Your task to perform on an android device: Go to Maps Image 0: 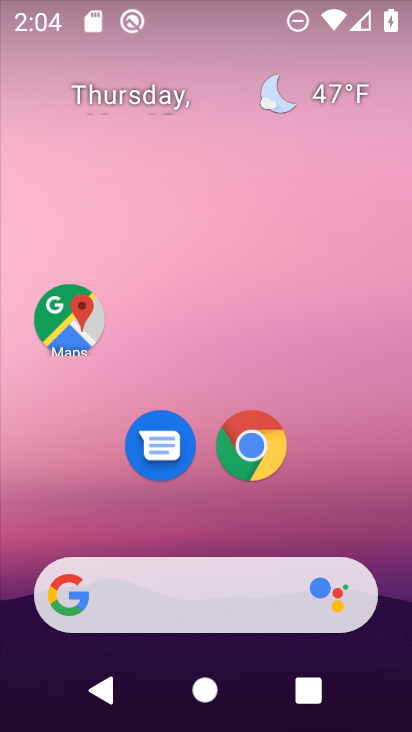
Step 0: click (61, 345)
Your task to perform on an android device: Go to Maps Image 1: 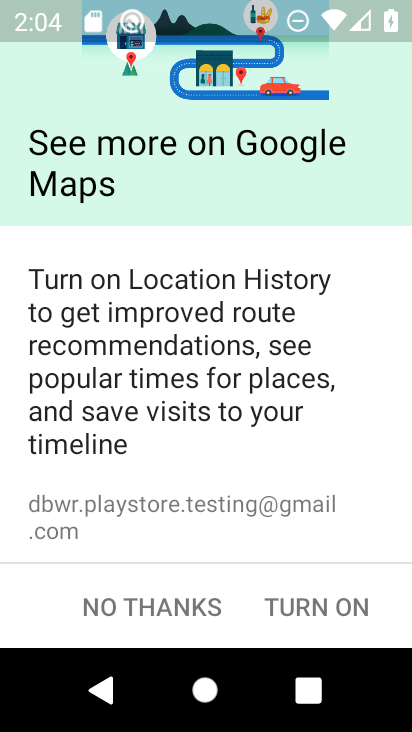
Step 1: drag from (230, 502) to (278, 288)
Your task to perform on an android device: Go to Maps Image 2: 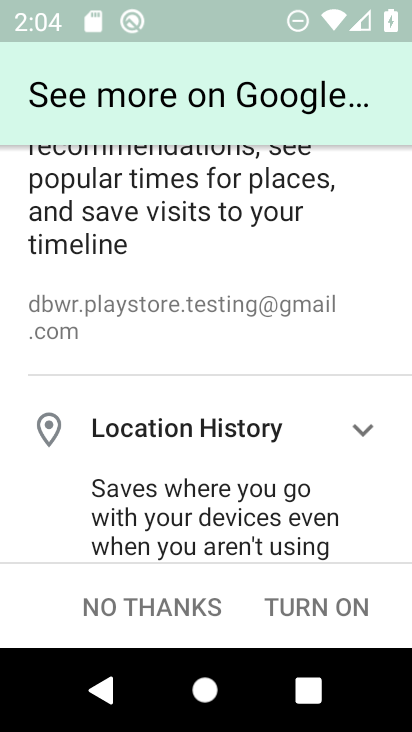
Step 2: click (309, 599)
Your task to perform on an android device: Go to Maps Image 3: 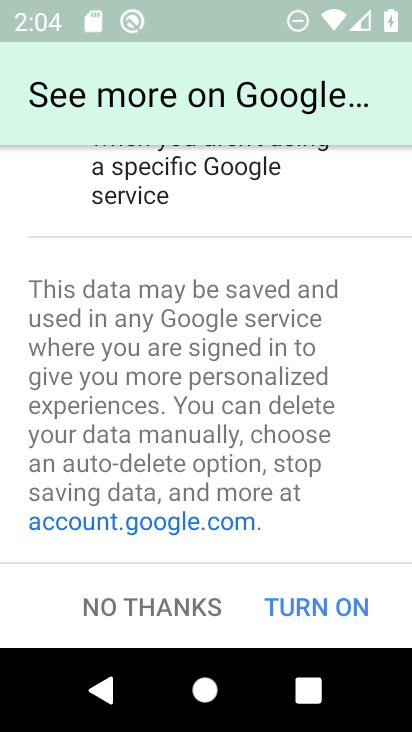
Step 3: click (330, 611)
Your task to perform on an android device: Go to Maps Image 4: 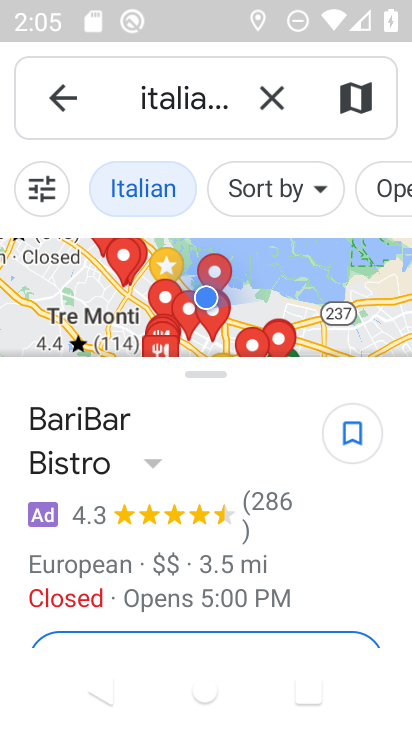
Step 4: task complete